Your task to perform on an android device: What's on my calendar today? Image 0: 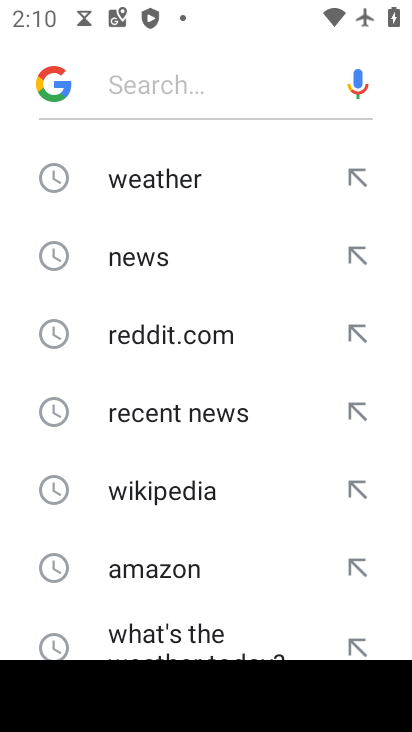
Step 0: press home button
Your task to perform on an android device: What's on my calendar today? Image 1: 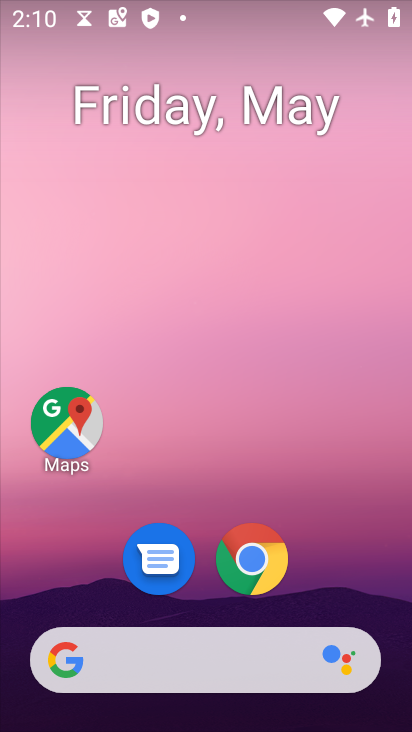
Step 1: drag from (347, 525) to (340, 154)
Your task to perform on an android device: What's on my calendar today? Image 2: 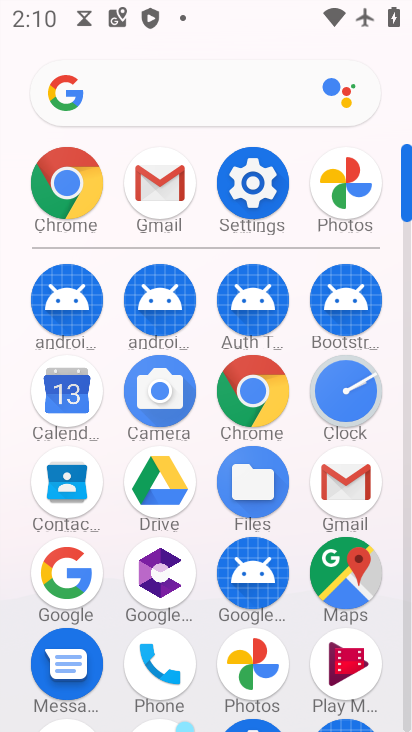
Step 2: click (77, 399)
Your task to perform on an android device: What's on my calendar today? Image 3: 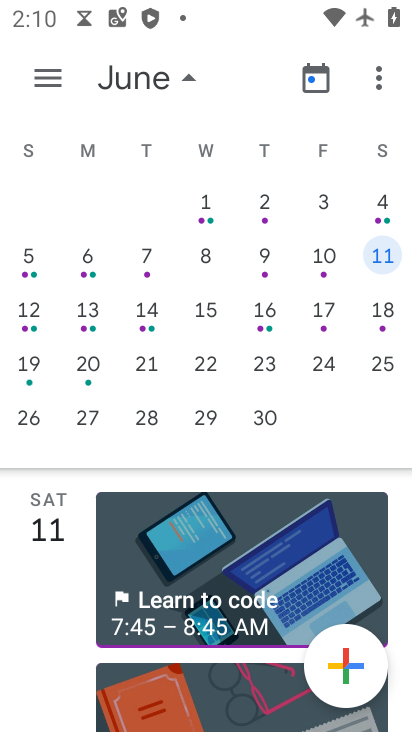
Step 3: drag from (60, 315) to (358, 333)
Your task to perform on an android device: What's on my calendar today? Image 4: 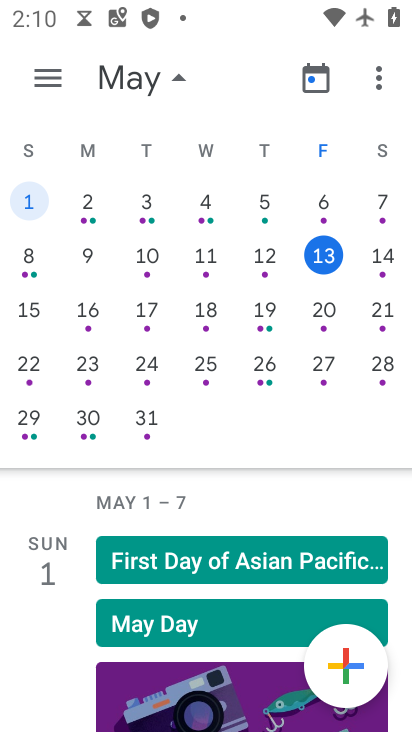
Step 4: click (320, 261)
Your task to perform on an android device: What's on my calendar today? Image 5: 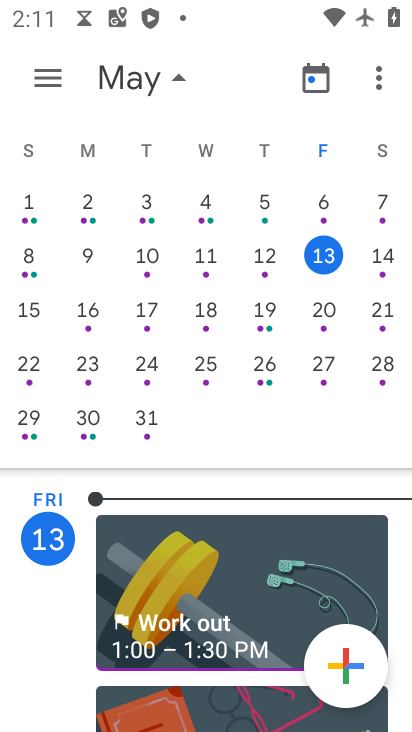
Step 5: task complete